Your task to perform on an android device: check storage Image 0: 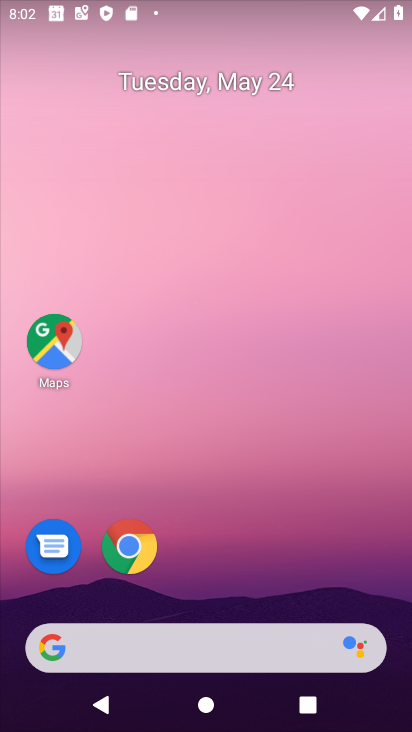
Step 0: drag from (271, 562) to (319, 14)
Your task to perform on an android device: check storage Image 1: 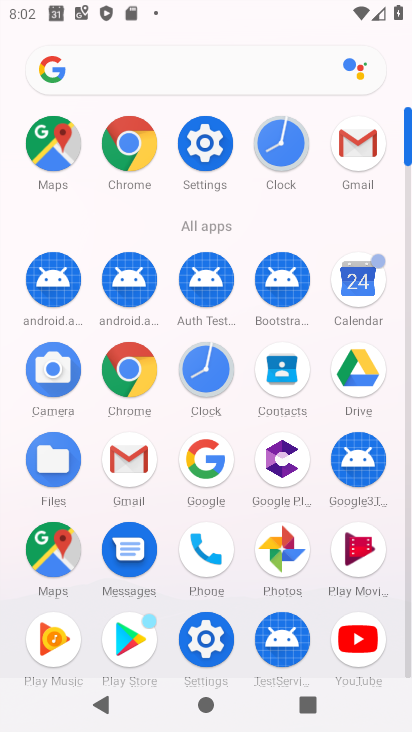
Step 1: click (215, 151)
Your task to perform on an android device: check storage Image 2: 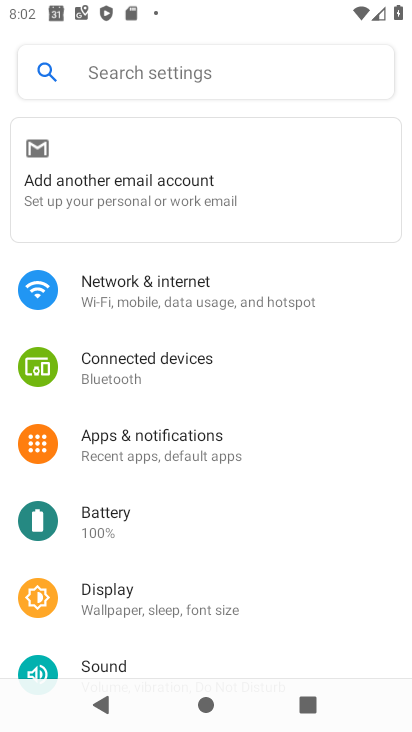
Step 2: drag from (162, 573) to (234, 214)
Your task to perform on an android device: check storage Image 3: 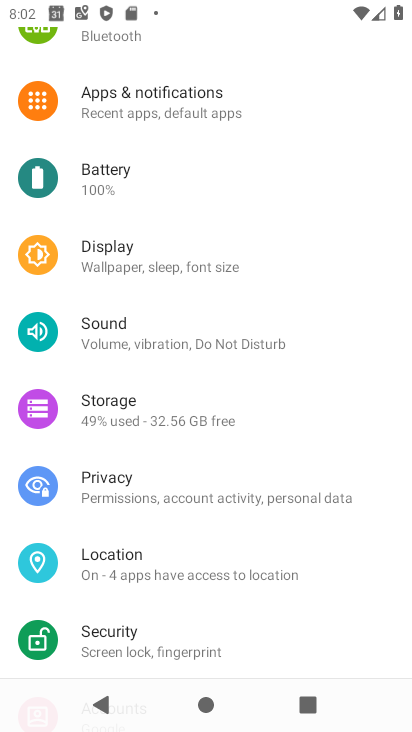
Step 3: click (209, 424)
Your task to perform on an android device: check storage Image 4: 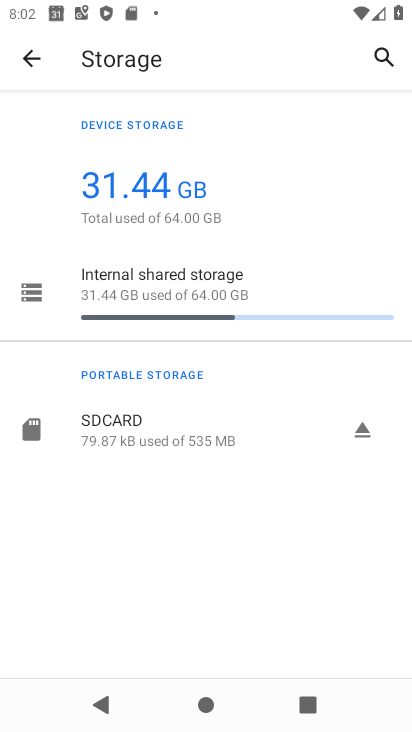
Step 4: task complete